Your task to perform on an android device: Open Google Maps Image 0: 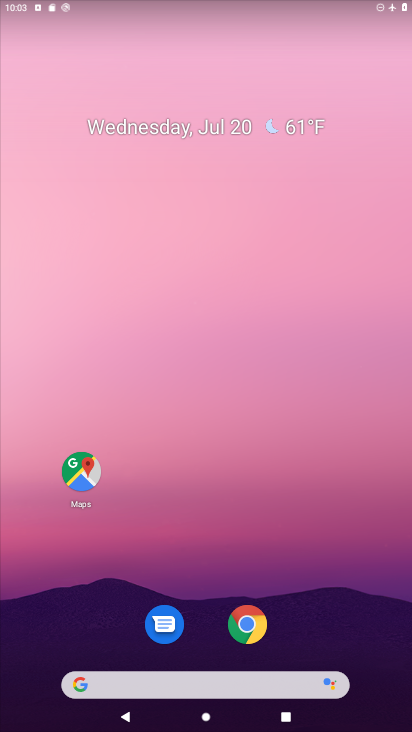
Step 0: click (83, 482)
Your task to perform on an android device: Open Google Maps Image 1: 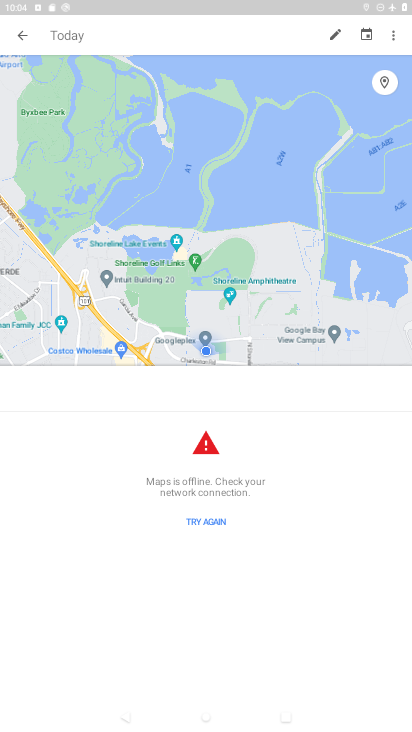
Step 1: task complete